Your task to perform on an android device: change notifications settings Image 0: 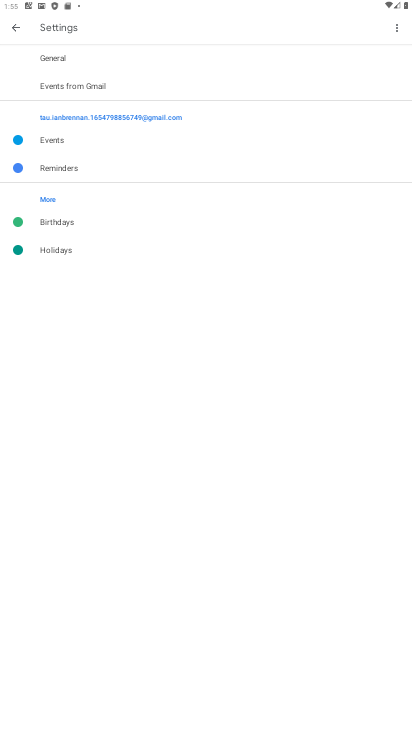
Step 0: press home button
Your task to perform on an android device: change notifications settings Image 1: 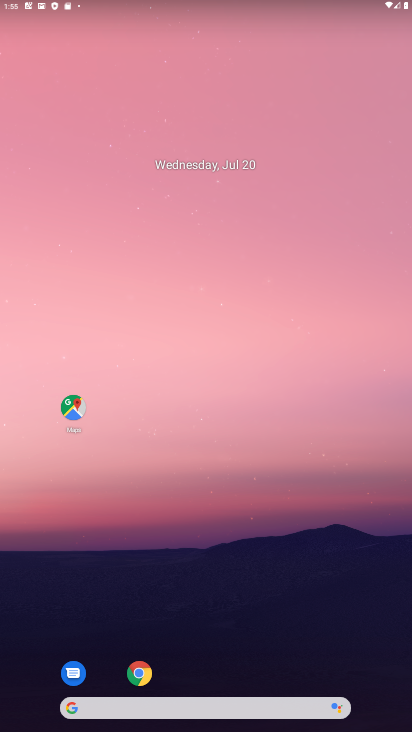
Step 1: drag from (188, 662) to (208, 119)
Your task to perform on an android device: change notifications settings Image 2: 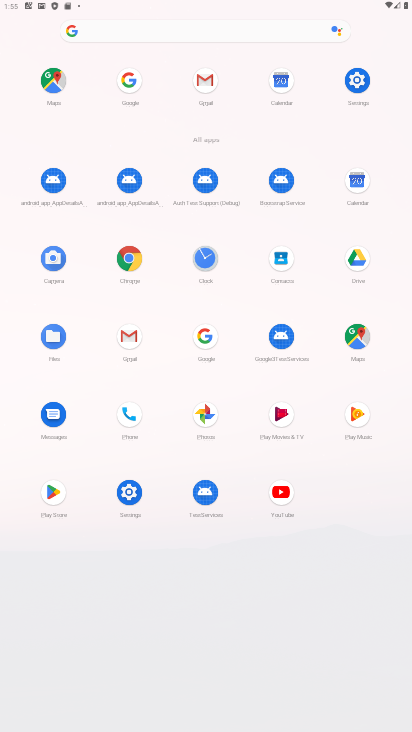
Step 2: click (129, 493)
Your task to perform on an android device: change notifications settings Image 3: 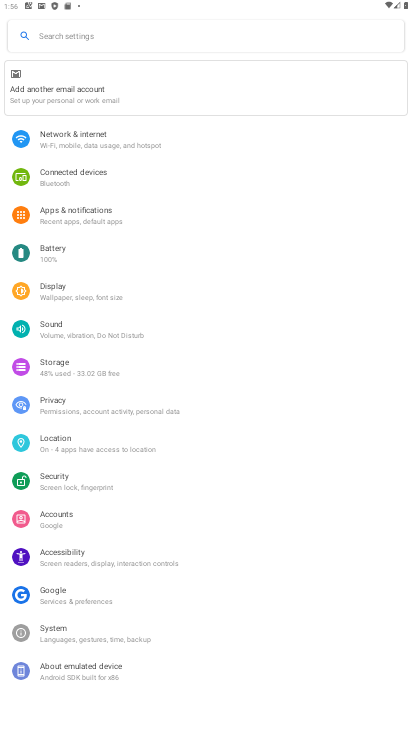
Step 3: click (83, 219)
Your task to perform on an android device: change notifications settings Image 4: 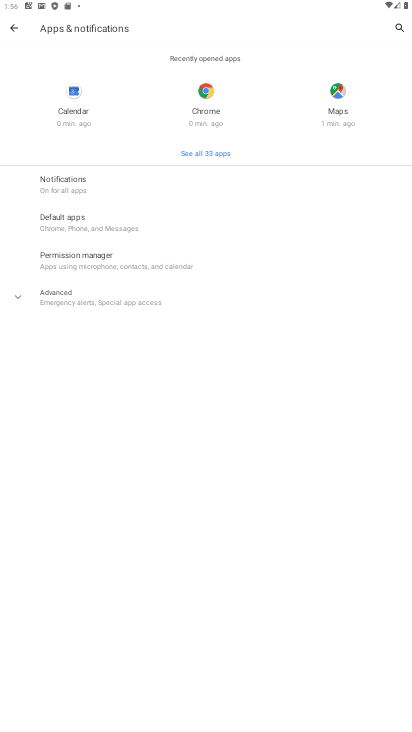
Step 4: task complete